Your task to perform on an android device: toggle javascript in the chrome app Image 0: 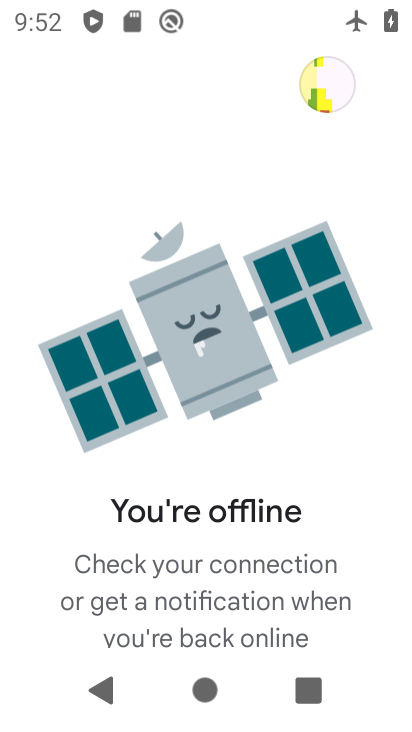
Step 0: press home button
Your task to perform on an android device: toggle javascript in the chrome app Image 1: 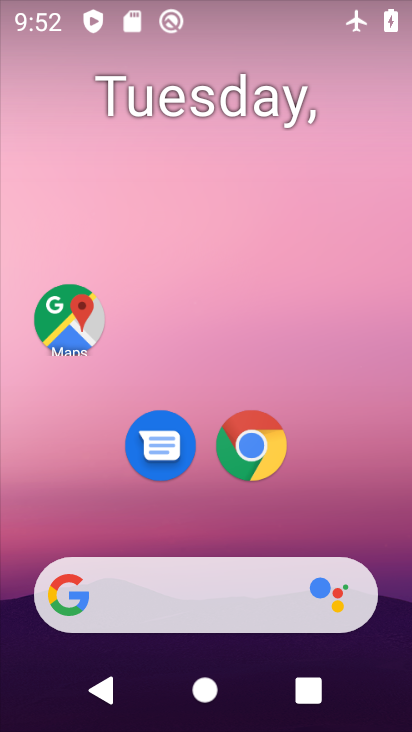
Step 1: click (242, 445)
Your task to perform on an android device: toggle javascript in the chrome app Image 2: 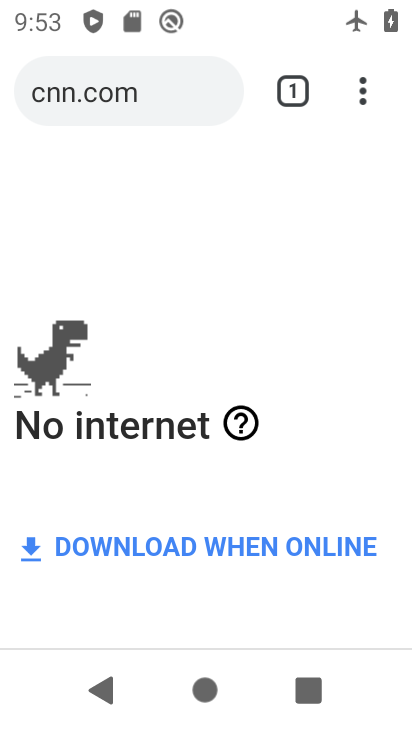
Step 2: click (377, 98)
Your task to perform on an android device: toggle javascript in the chrome app Image 3: 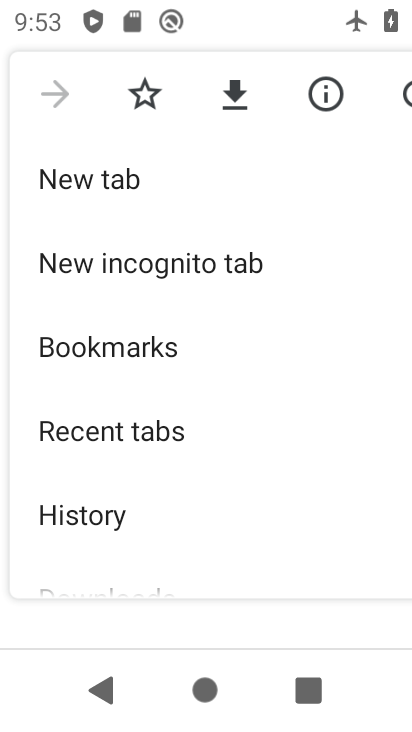
Step 3: drag from (197, 543) to (165, 216)
Your task to perform on an android device: toggle javascript in the chrome app Image 4: 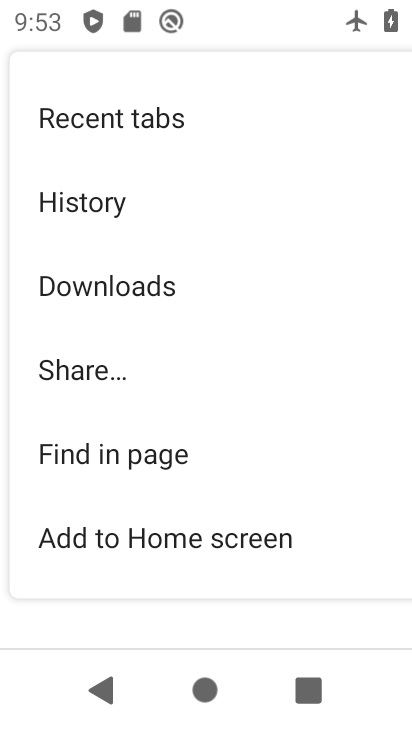
Step 4: drag from (191, 478) to (141, 219)
Your task to perform on an android device: toggle javascript in the chrome app Image 5: 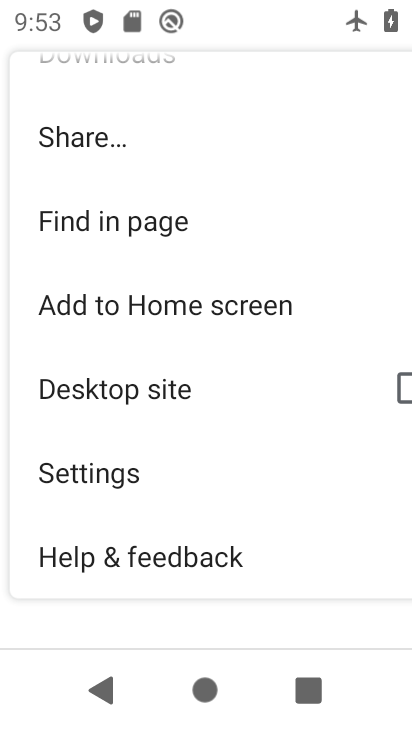
Step 5: click (169, 474)
Your task to perform on an android device: toggle javascript in the chrome app Image 6: 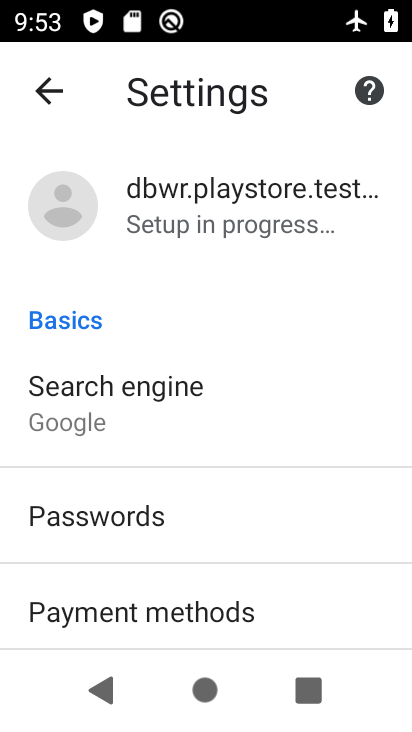
Step 6: drag from (191, 627) to (158, 174)
Your task to perform on an android device: toggle javascript in the chrome app Image 7: 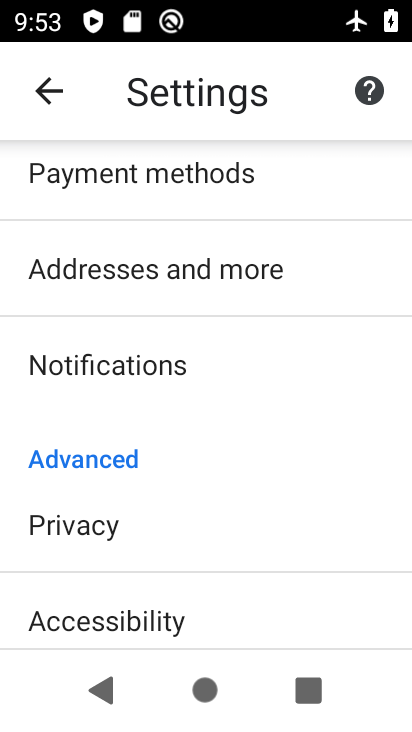
Step 7: drag from (194, 543) to (174, 290)
Your task to perform on an android device: toggle javascript in the chrome app Image 8: 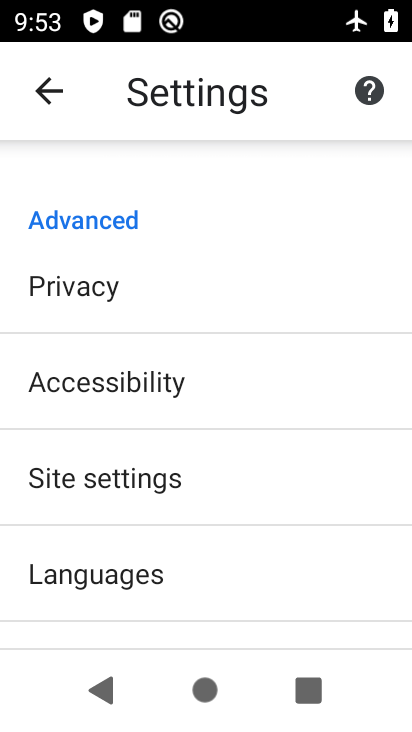
Step 8: click (190, 480)
Your task to perform on an android device: toggle javascript in the chrome app Image 9: 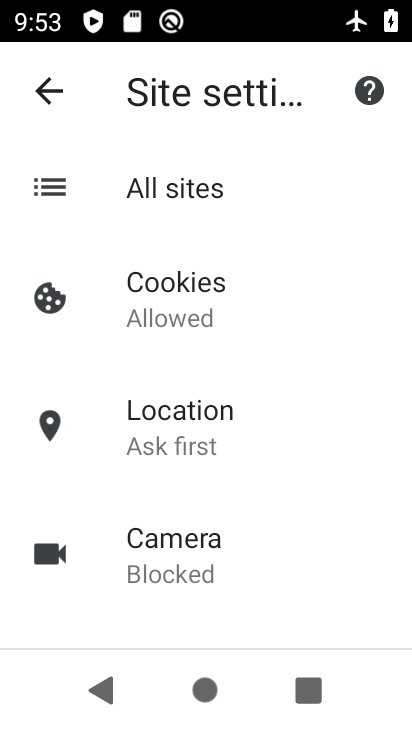
Step 9: drag from (224, 579) to (183, 243)
Your task to perform on an android device: toggle javascript in the chrome app Image 10: 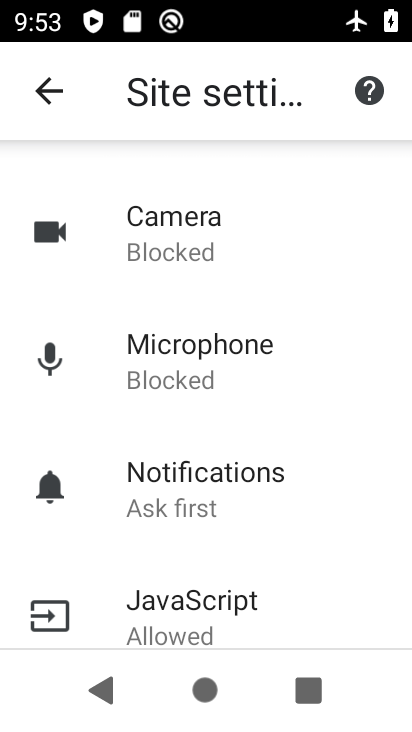
Step 10: drag from (222, 519) to (208, 216)
Your task to perform on an android device: toggle javascript in the chrome app Image 11: 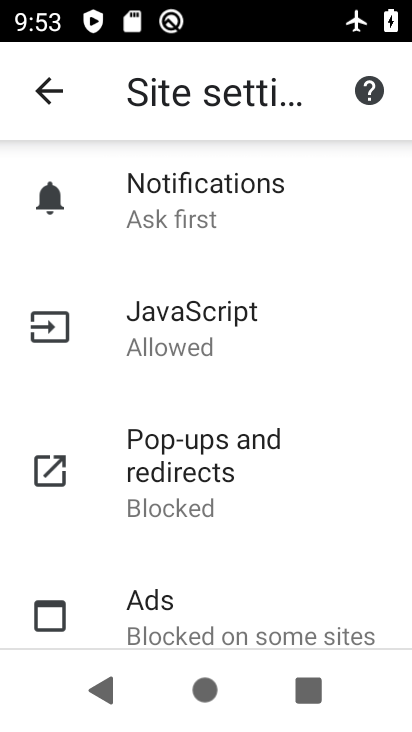
Step 11: click (226, 351)
Your task to perform on an android device: toggle javascript in the chrome app Image 12: 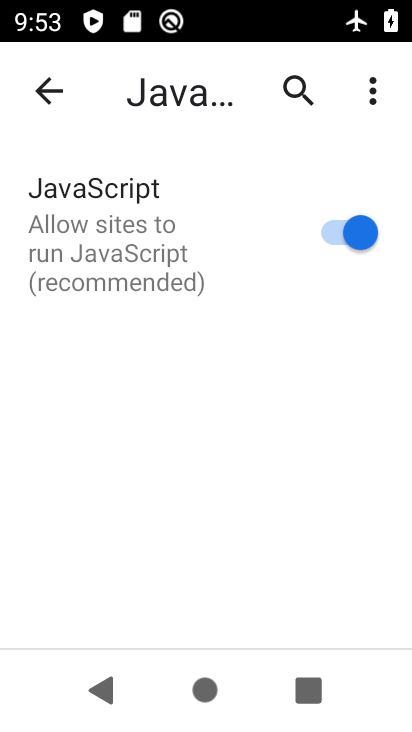
Step 12: click (342, 247)
Your task to perform on an android device: toggle javascript in the chrome app Image 13: 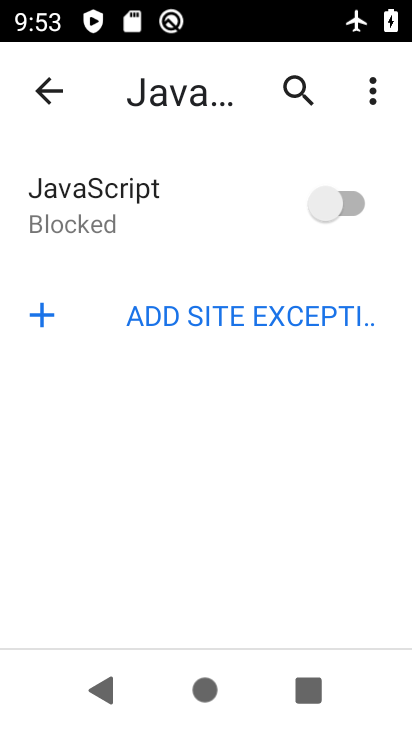
Step 13: task complete